Your task to perform on an android device: turn on translation in the chrome app Image 0: 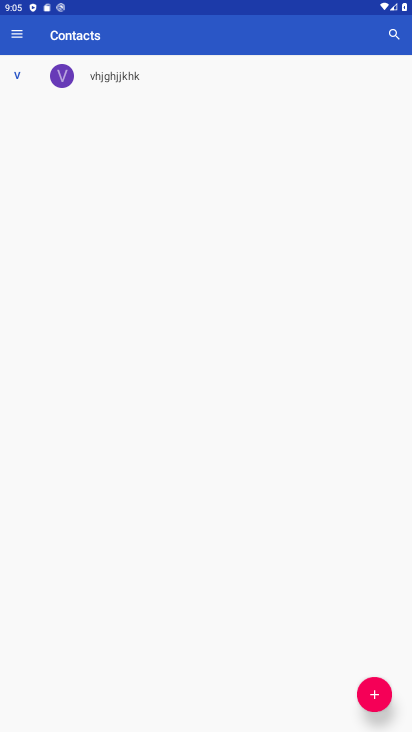
Step 0: press home button
Your task to perform on an android device: turn on translation in the chrome app Image 1: 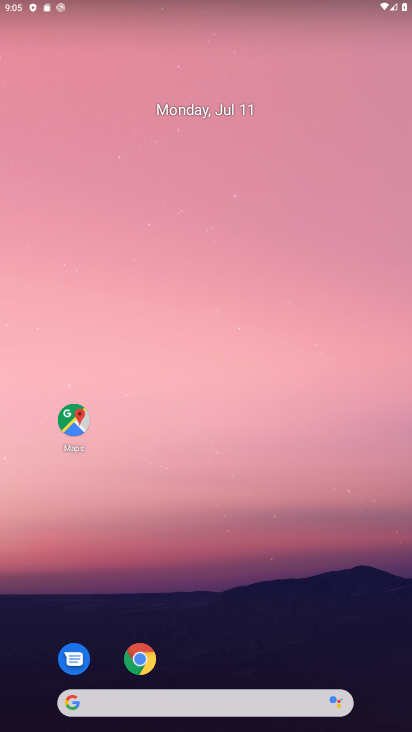
Step 1: drag from (352, 639) to (350, 144)
Your task to perform on an android device: turn on translation in the chrome app Image 2: 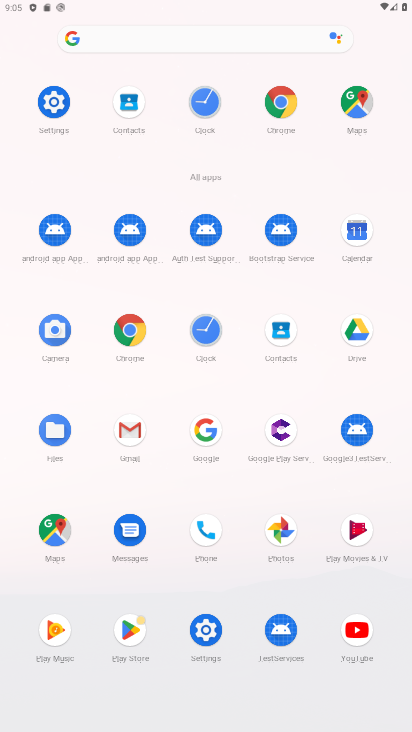
Step 2: click (131, 331)
Your task to perform on an android device: turn on translation in the chrome app Image 3: 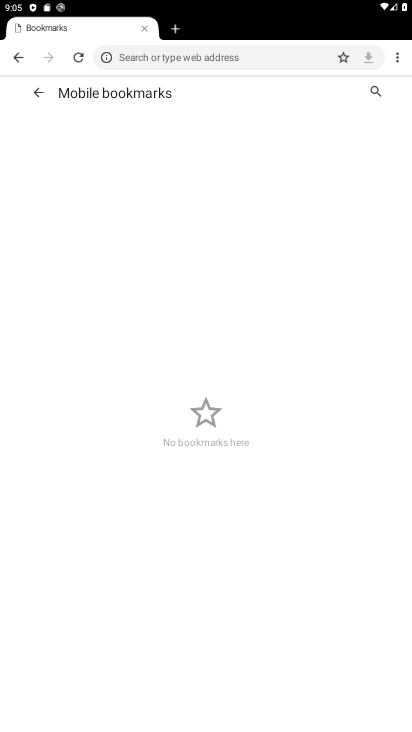
Step 3: click (394, 55)
Your task to perform on an android device: turn on translation in the chrome app Image 4: 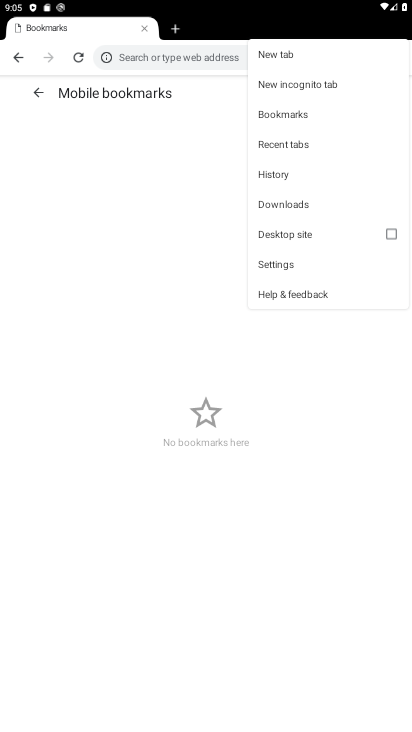
Step 4: click (287, 265)
Your task to perform on an android device: turn on translation in the chrome app Image 5: 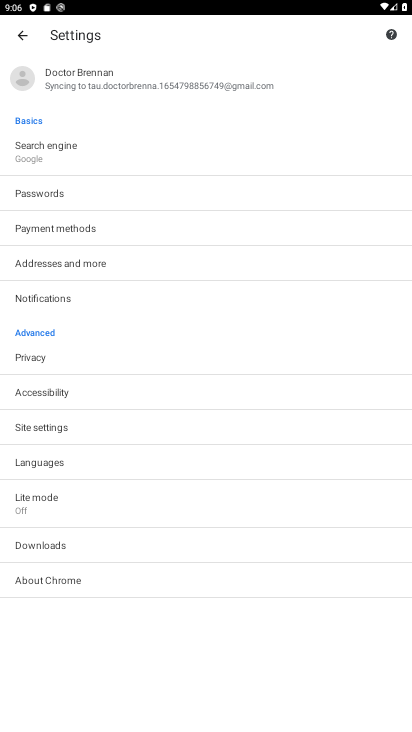
Step 5: click (182, 467)
Your task to perform on an android device: turn on translation in the chrome app Image 6: 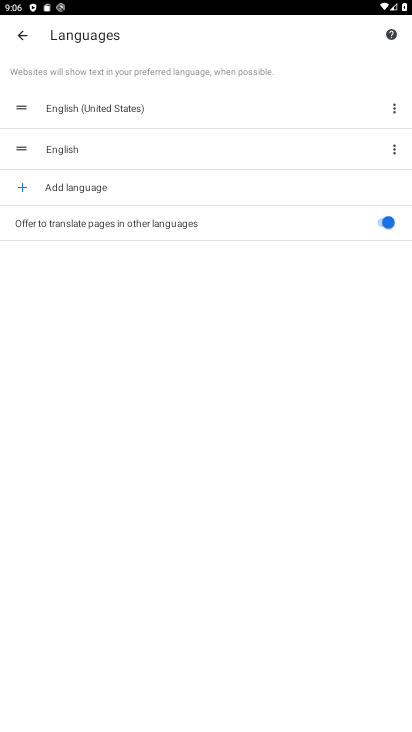
Step 6: task complete